Your task to perform on an android device: turn on translation in the chrome app Image 0: 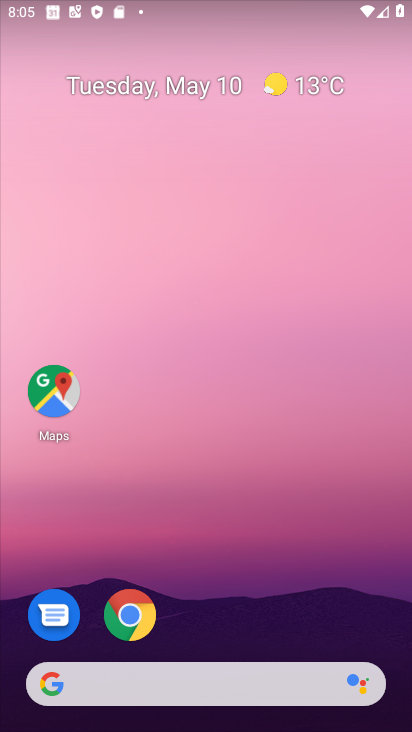
Step 0: click (132, 613)
Your task to perform on an android device: turn on translation in the chrome app Image 1: 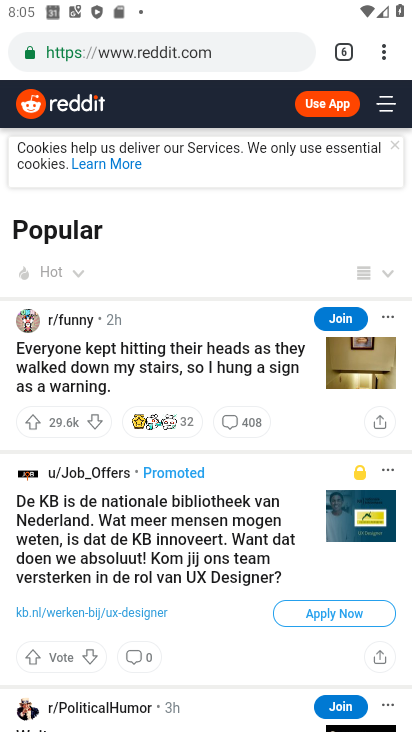
Step 1: click (382, 58)
Your task to perform on an android device: turn on translation in the chrome app Image 2: 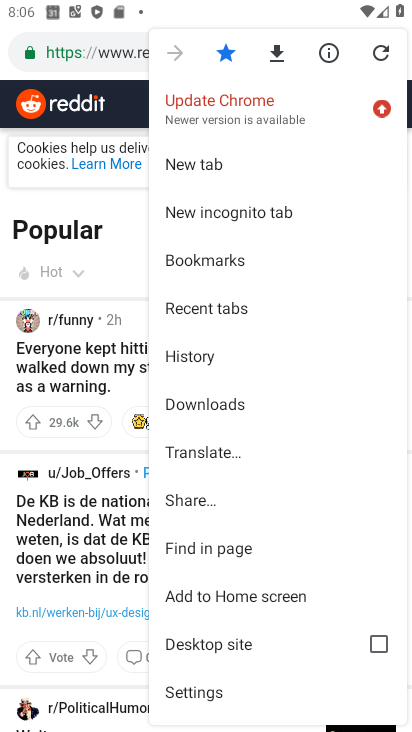
Step 2: click (200, 686)
Your task to perform on an android device: turn on translation in the chrome app Image 3: 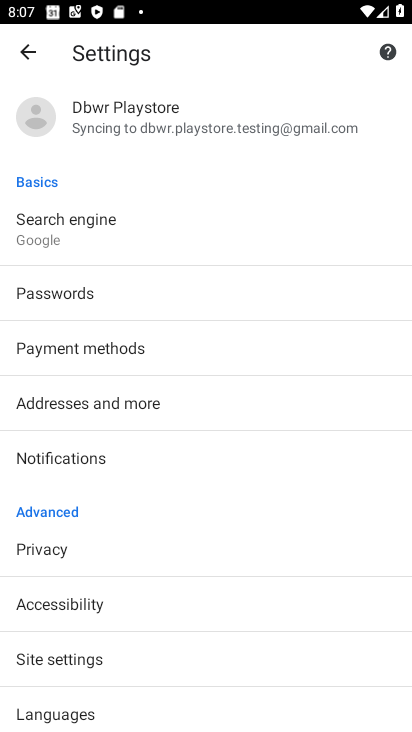
Step 3: drag from (227, 530) to (248, 231)
Your task to perform on an android device: turn on translation in the chrome app Image 4: 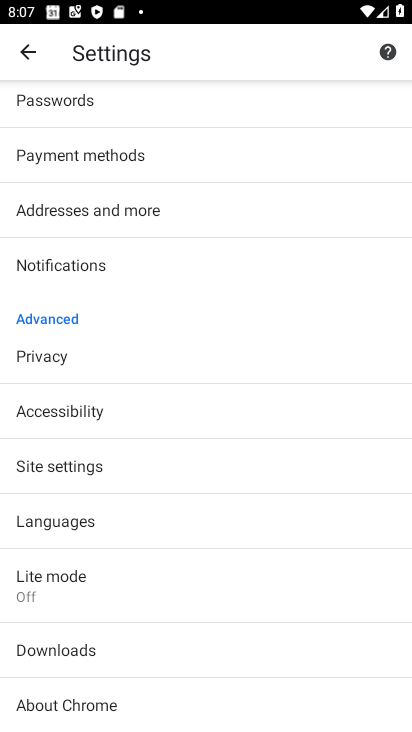
Step 4: drag from (166, 581) to (119, 376)
Your task to perform on an android device: turn on translation in the chrome app Image 5: 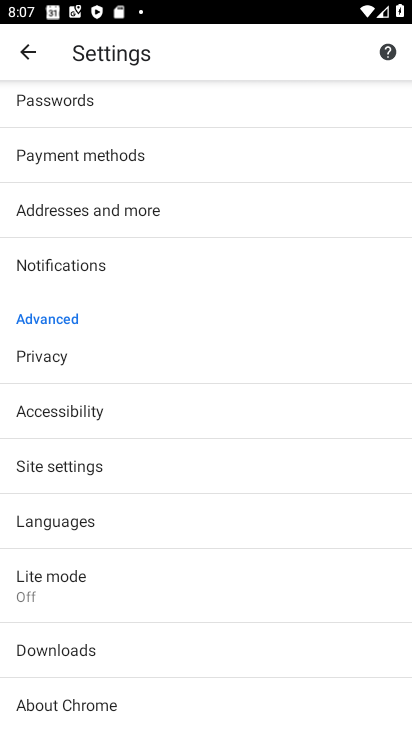
Step 5: click (96, 515)
Your task to perform on an android device: turn on translation in the chrome app Image 6: 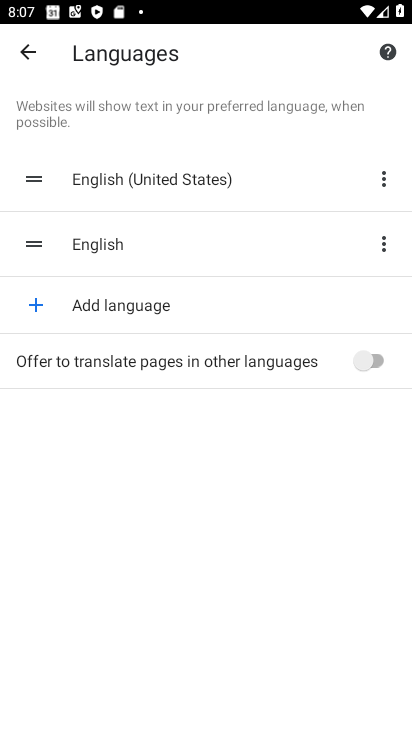
Step 6: click (366, 346)
Your task to perform on an android device: turn on translation in the chrome app Image 7: 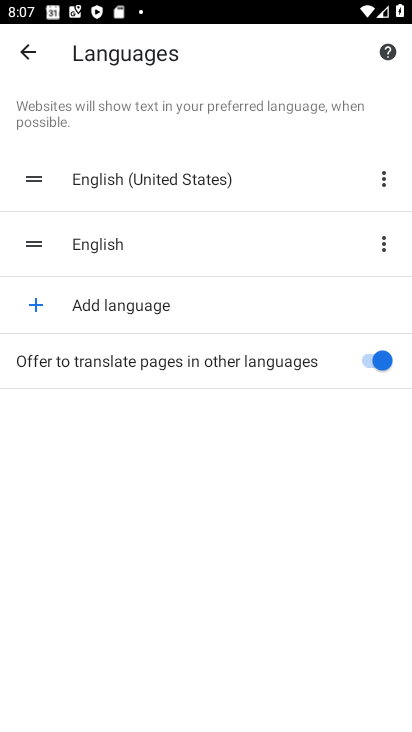
Step 7: task complete